Your task to perform on an android device: Open privacy settings Image 0: 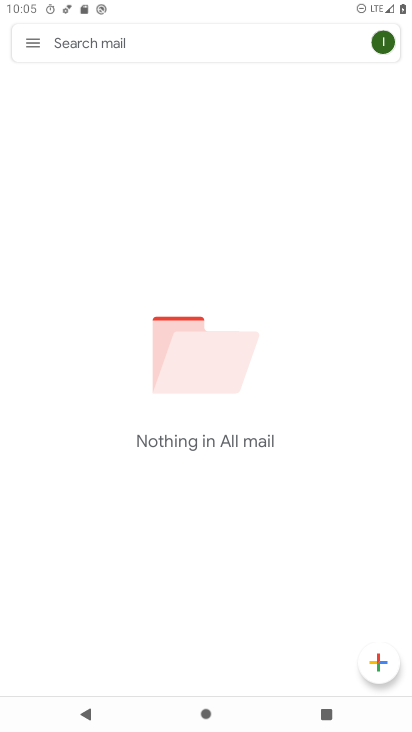
Step 0: press home button
Your task to perform on an android device: Open privacy settings Image 1: 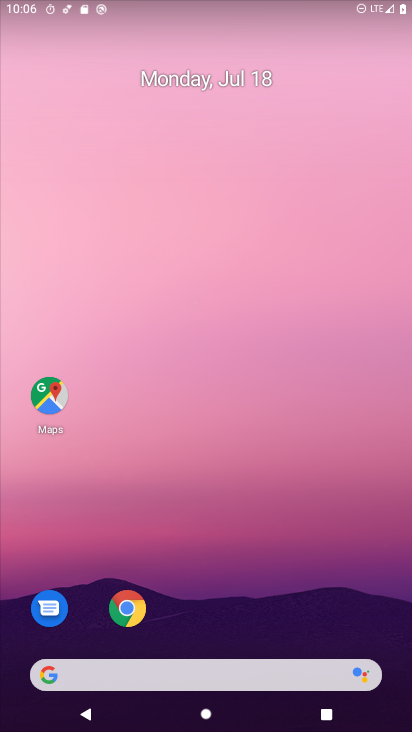
Step 1: drag from (199, 446) to (272, 5)
Your task to perform on an android device: Open privacy settings Image 2: 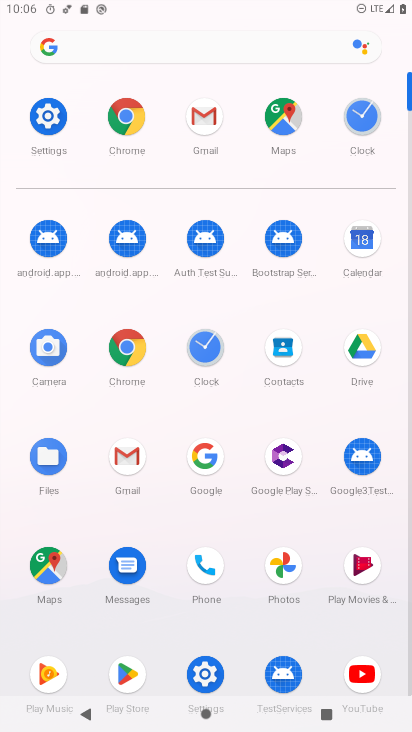
Step 2: click (47, 117)
Your task to perform on an android device: Open privacy settings Image 3: 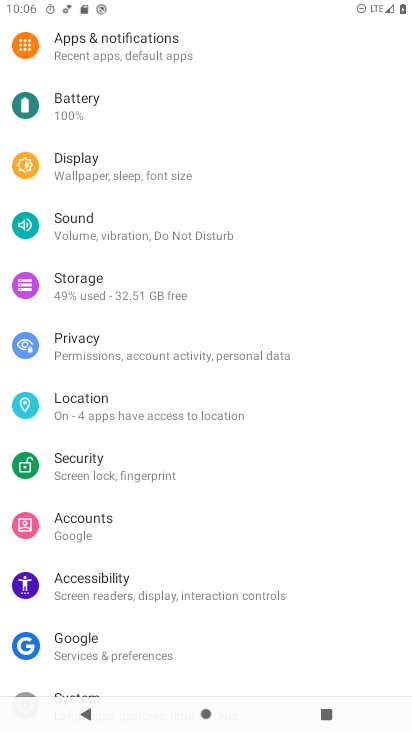
Step 3: click (63, 342)
Your task to perform on an android device: Open privacy settings Image 4: 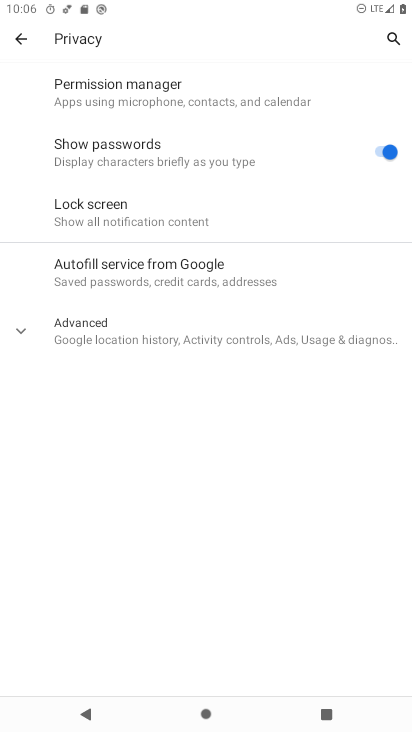
Step 4: task complete